Your task to perform on an android device: Empty the shopping cart on bestbuy. Search for lg ultragear on bestbuy, select the first entry, add it to the cart, then select checkout. Image 0: 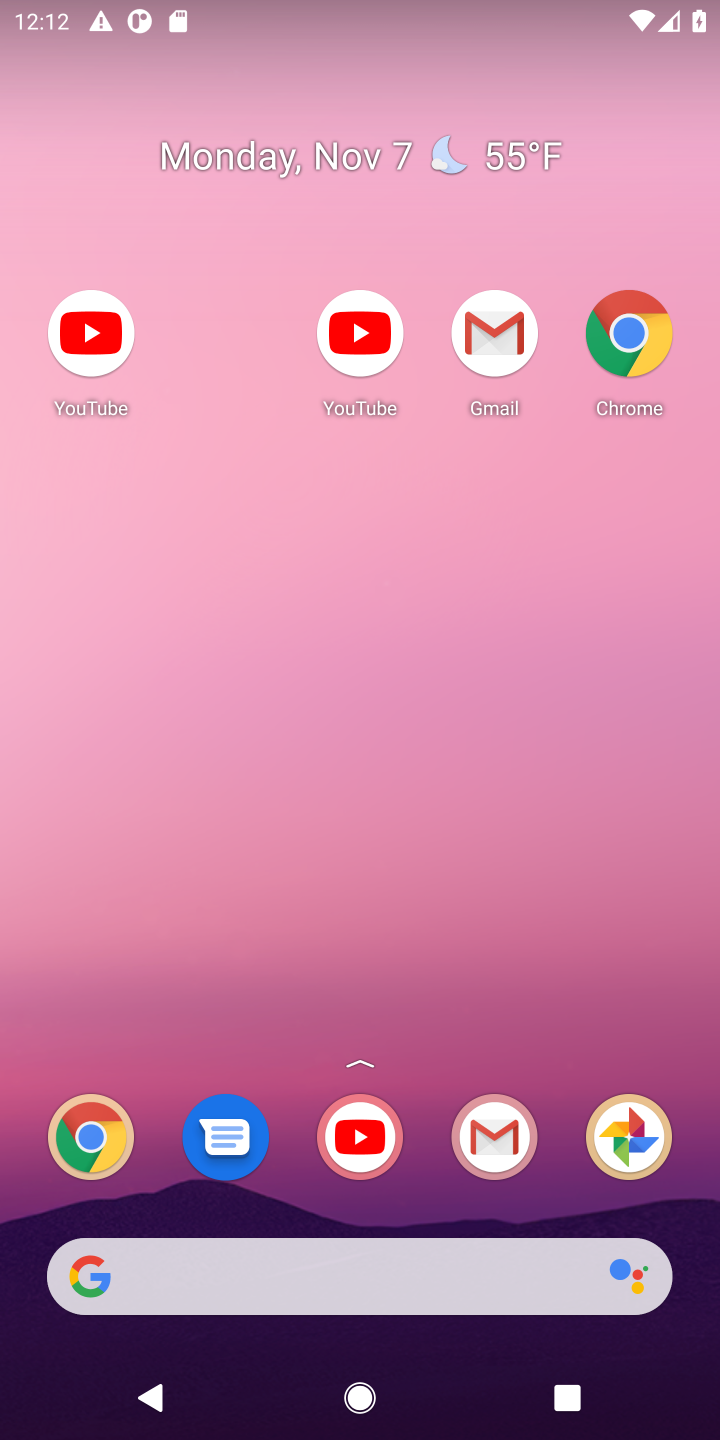
Step 0: drag from (392, 927) to (349, 451)
Your task to perform on an android device: Empty the shopping cart on bestbuy. Search for lg ultragear on bestbuy, select the first entry, add it to the cart, then select checkout. Image 1: 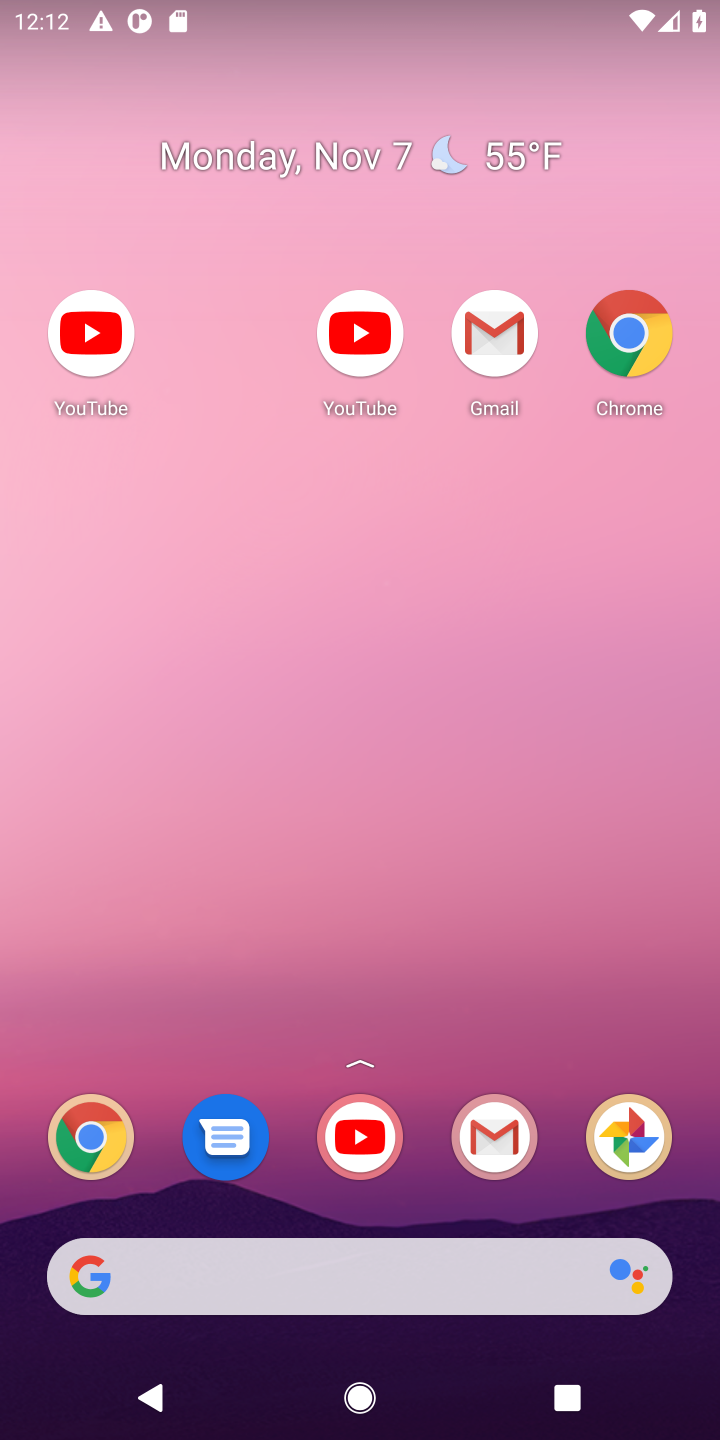
Step 1: drag from (285, 1226) to (336, 297)
Your task to perform on an android device: Empty the shopping cart on bestbuy. Search for lg ultragear on bestbuy, select the first entry, add it to the cart, then select checkout. Image 2: 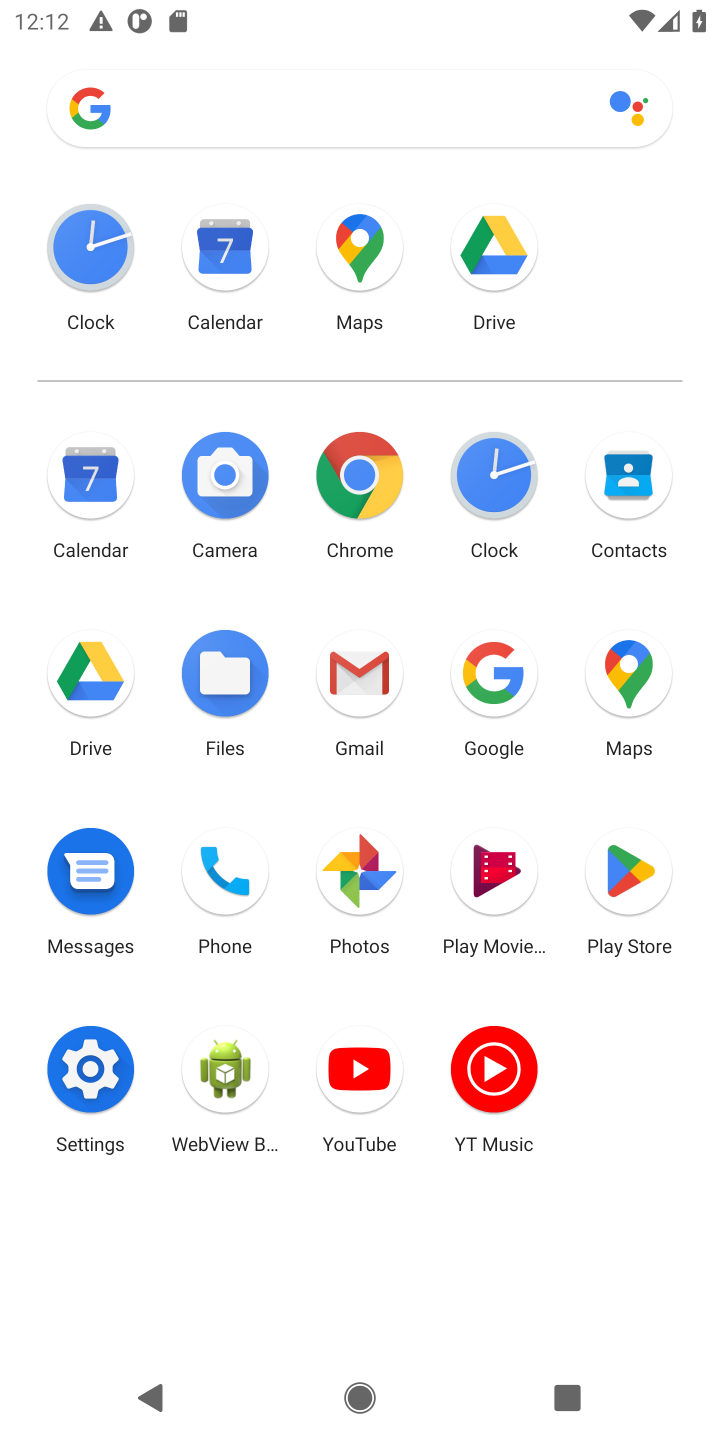
Step 2: click (358, 484)
Your task to perform on an android device: Empty the shopping cart on bestbuy. Search for lg ultragear on bestbuy, select the first entry, add it to the cart, then select checkout. Image 3: 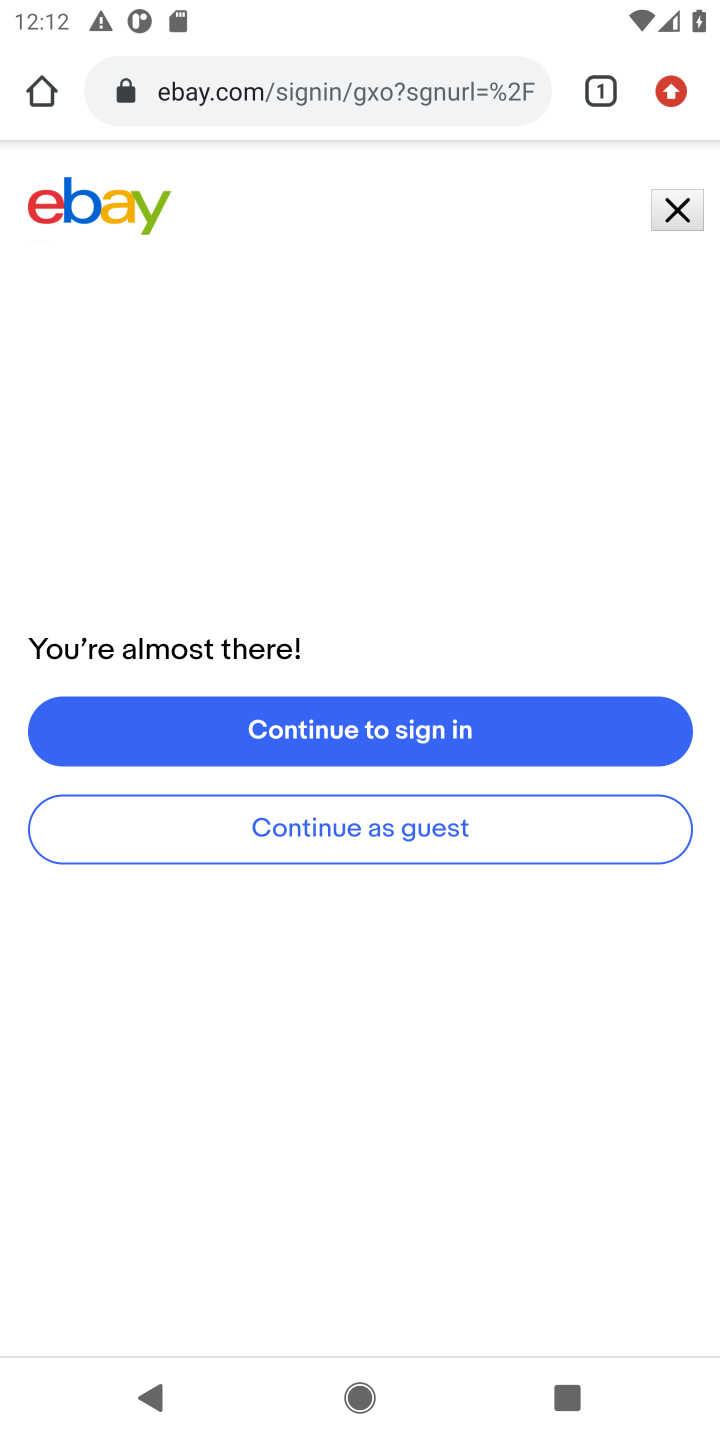
Step 3: click (396, 104)
Your task to perform on an android device: Empty the shopping cart on bestbuy. Search for lg ultragear on bestbuy, select the first entry, add it to the cart, then select checkout. Image 4: 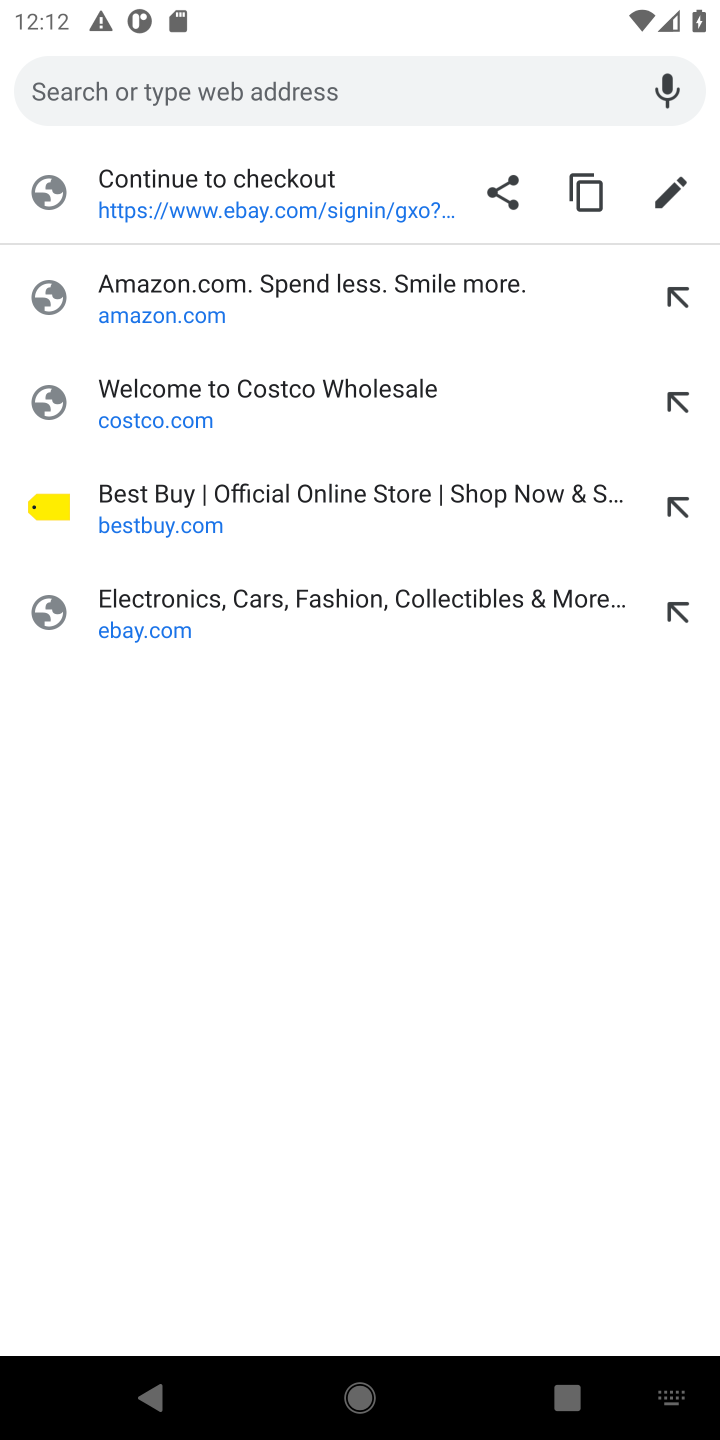
Step 4: type "bestbuy.com"
Your task to perform on an android device: Empty the shopping cart on bestbuy. Search for lg ultragear on bestbuy, select the first entry, add it to the cart, then select checkout. Image 5: 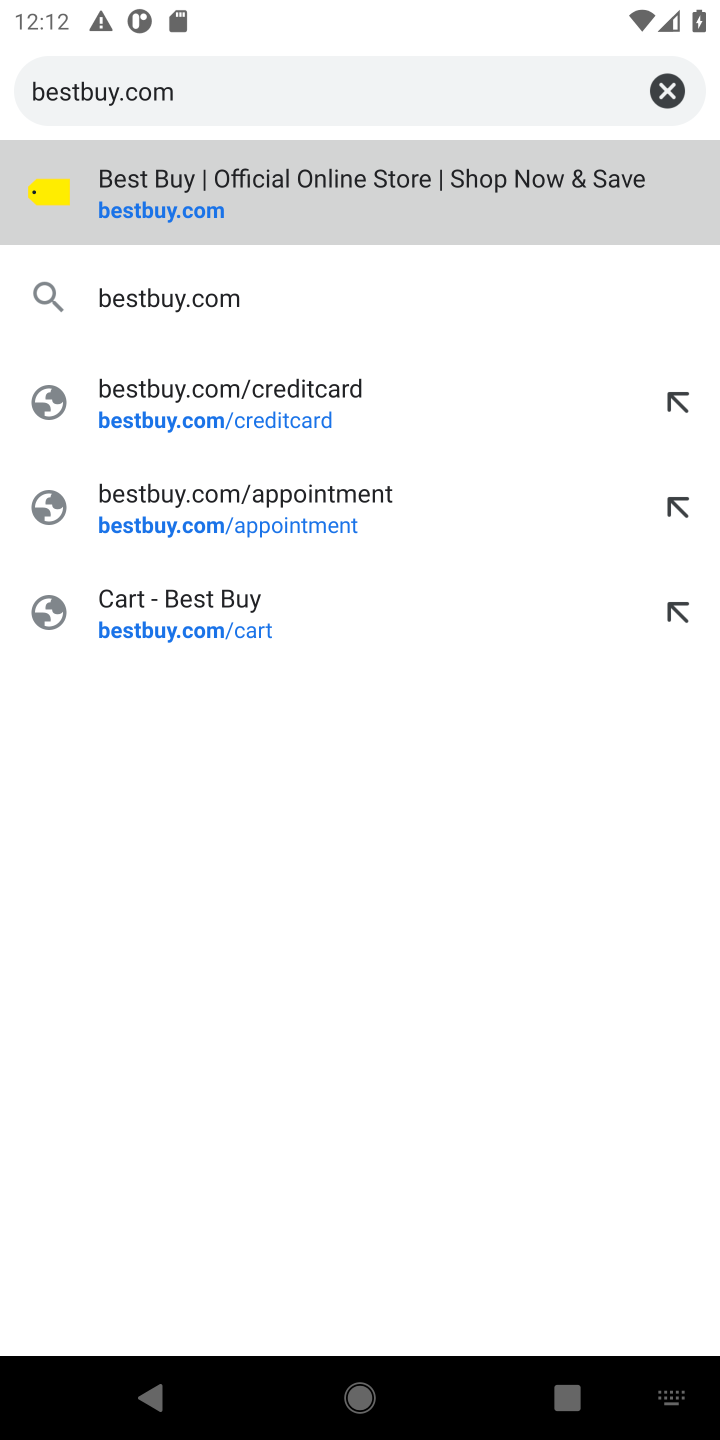
Step 5: press enter
Your task to perform on an android device: Empty the shopping cart on bestbuy. Search for lg ultragear on bestbuy, select the first entry, add it to the cart, then select checkout. Image 6: 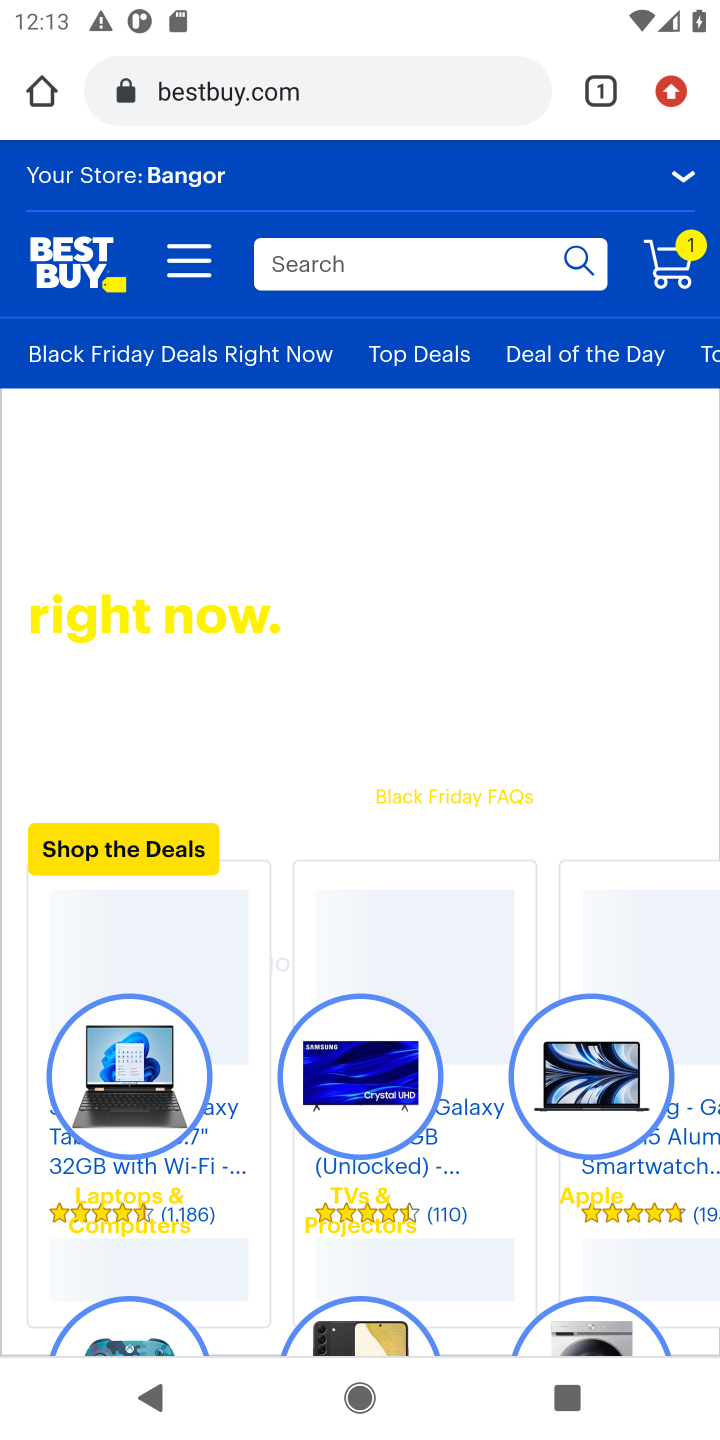
Step 6: click (677, 267)
Your task to perform on an android device: Empty the shopping cart on bestbuy. Search for lg ultragear on bestbuy, select the first entry, add it to the cart, then select checkout. Image 7: 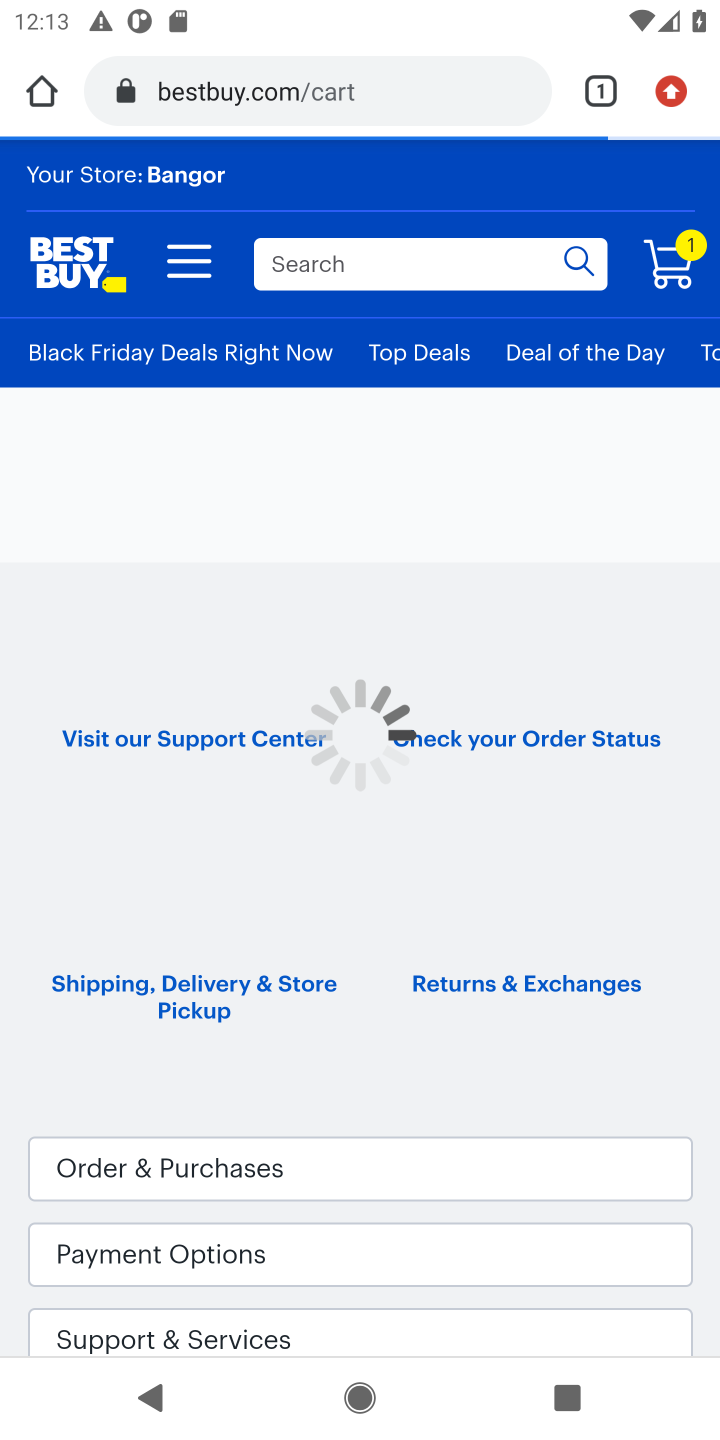
Step 7: click (673, 269)
Your task to perform on an android device: Empty the shopping cart on bestbuy. Search for lg ultragear on bestbuy, select the first entry, add it to the cart, then select checkout. Image 8: 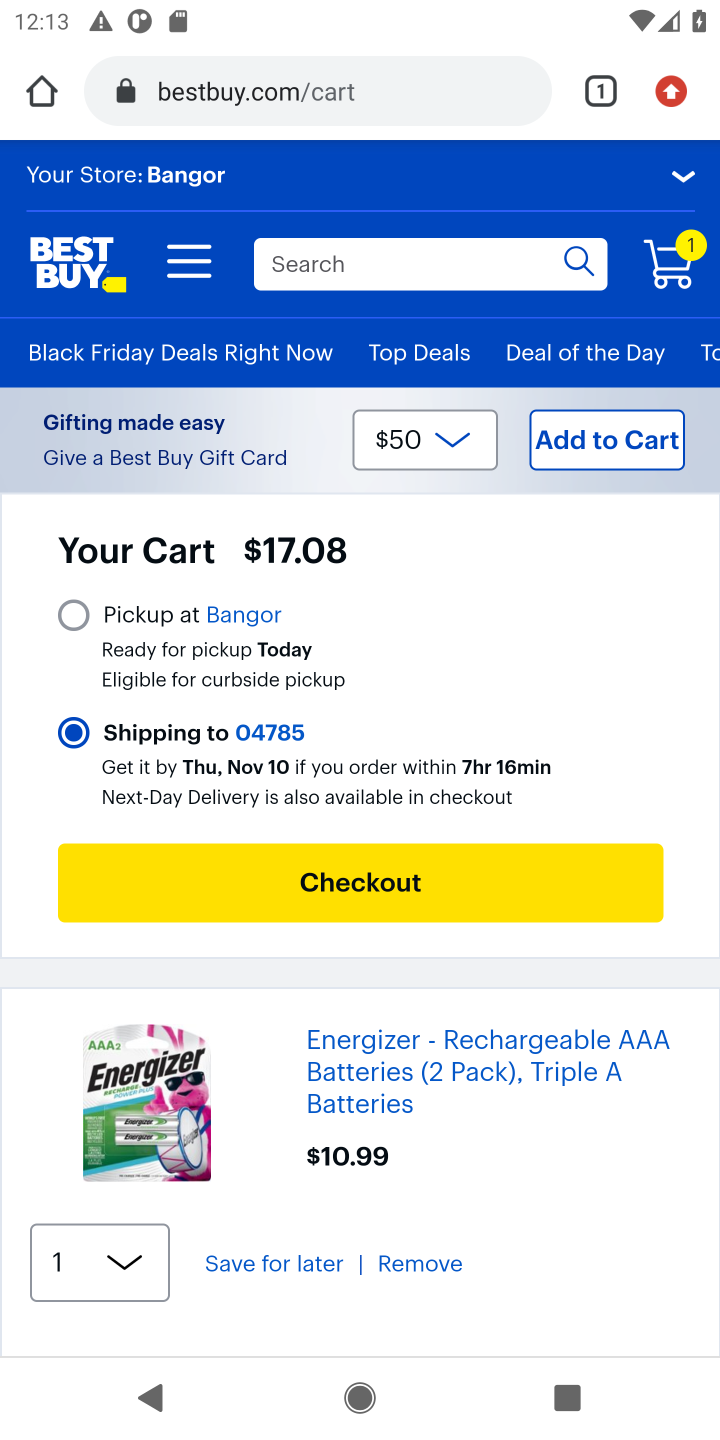
Step 8: click (422, 1250)
Your task to perform on an android device: Empty the shopping cart on bestbuy. Search for lg ultragear on bestbuy, select the first entry, add it to the cart, then select checkout. Image 9: 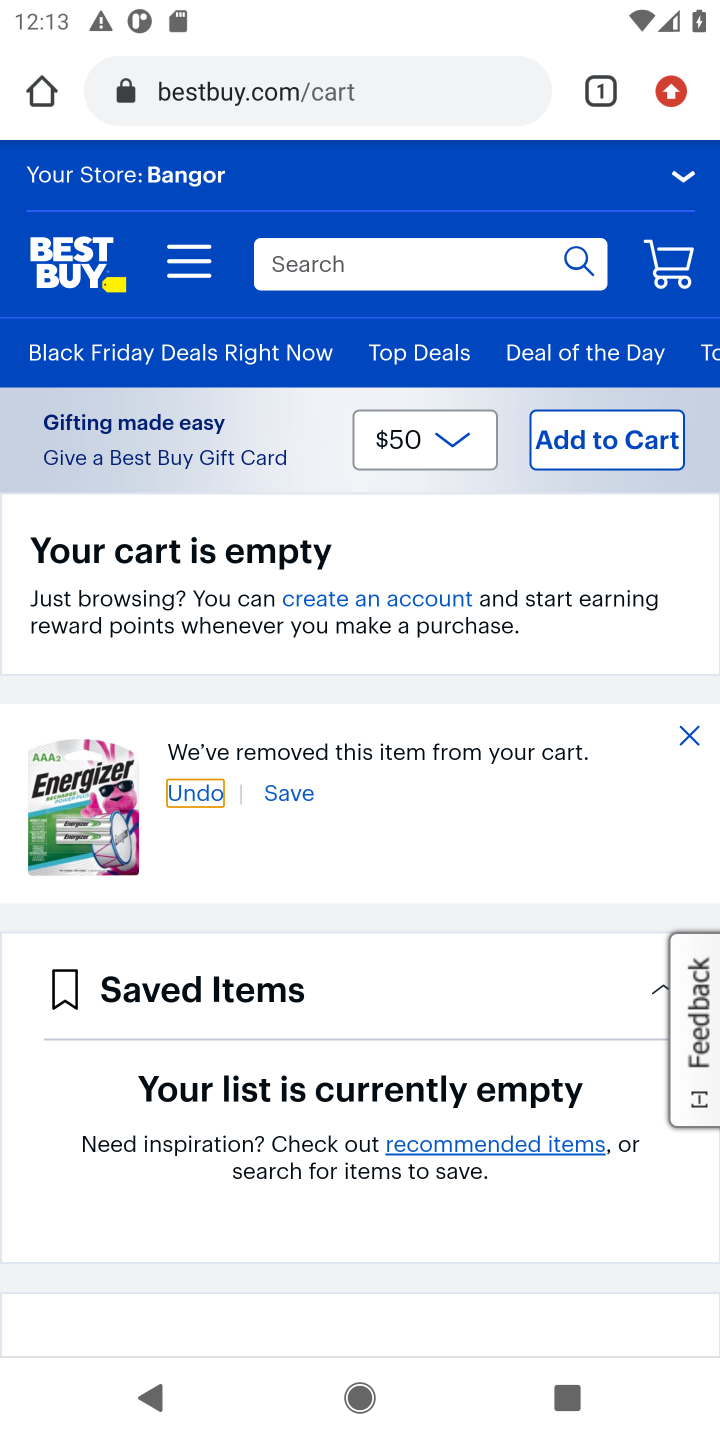
Step 9: click (501, 265)
Your task to perform on an android device: Empty the shopping cart on bestbuy. Search for lg ultragear on bestbuy, select the first entry, add it to the cart, then select checkout. Image 10: 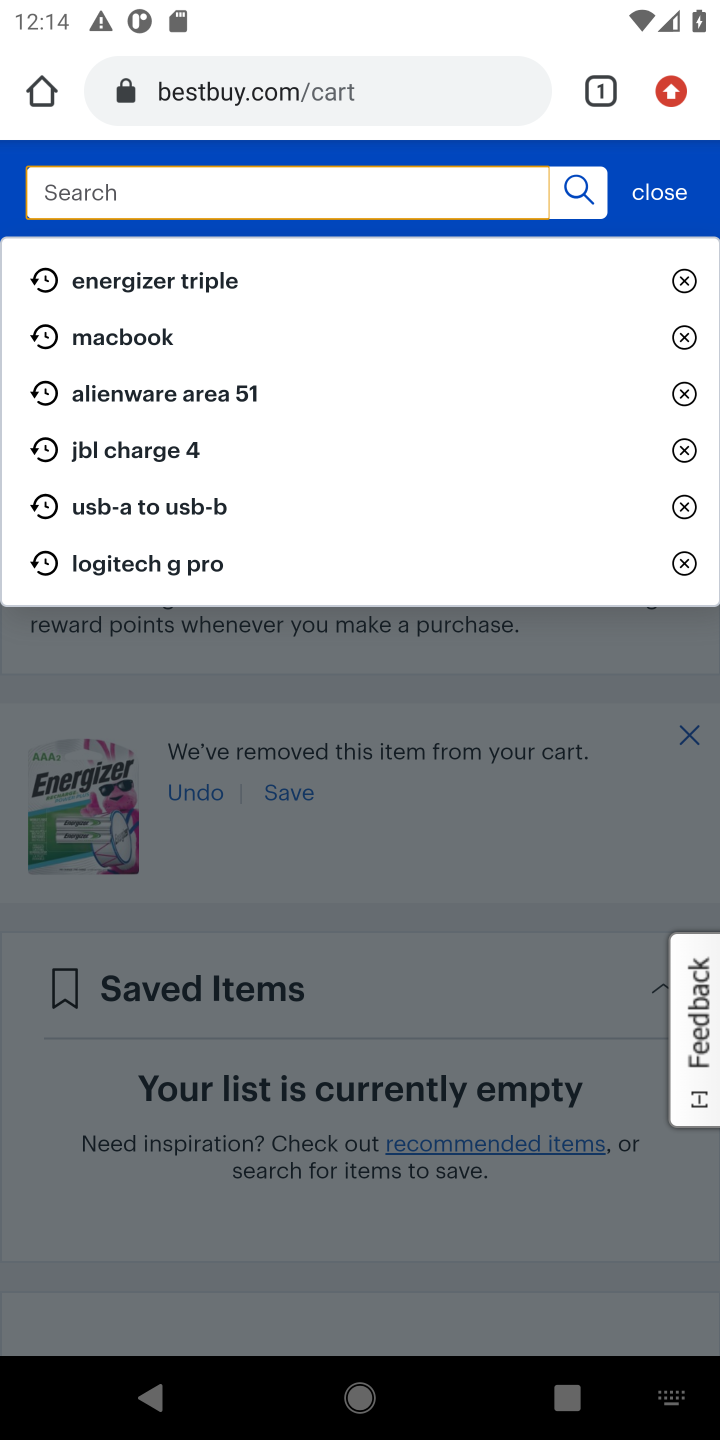
Step 10: type "lg ultragrear"
Your task to perform on an android device: Empty the shopping cart on bestbuy. Search for lg ultragear on bestbuy, select the first entry, add it to the cart, then select checkout. Image 11: 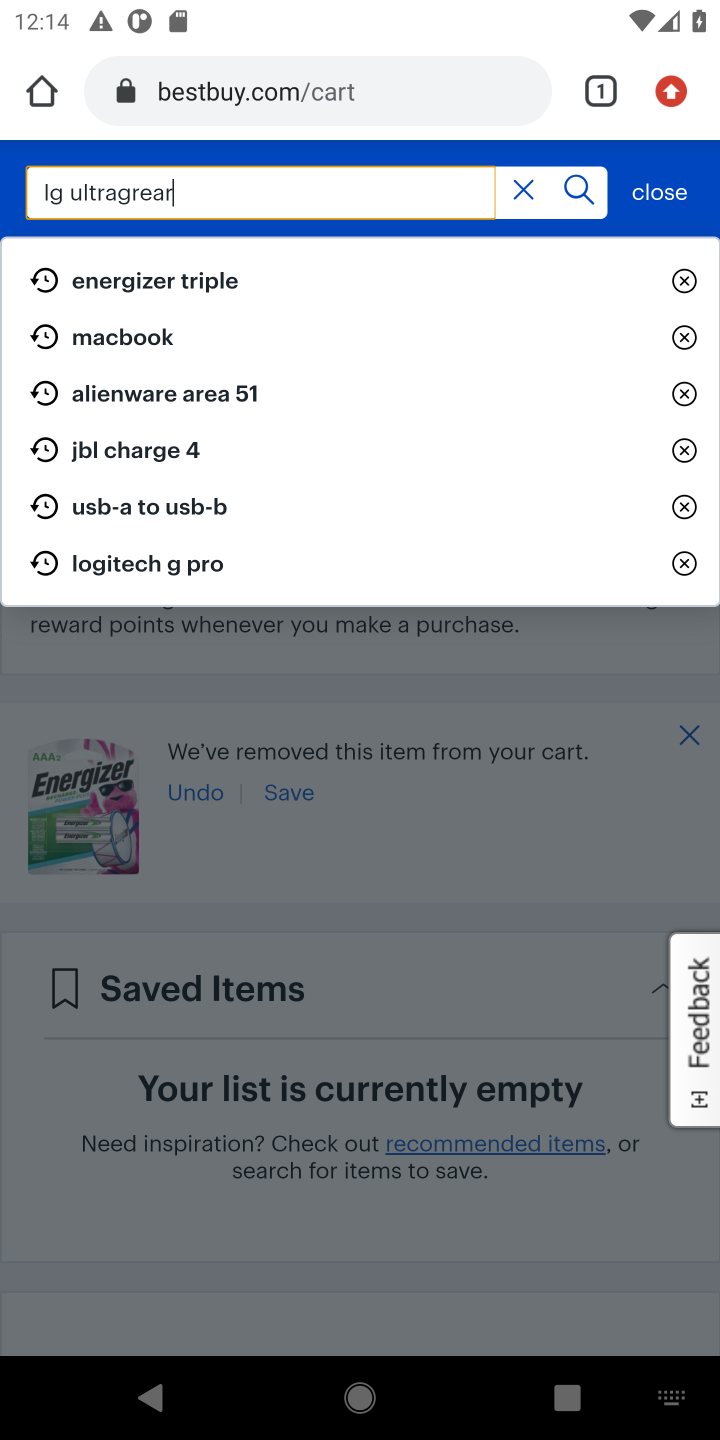
Step 11: press enter
Your task to perform on an android device: Empty the shopping cart on bestbuy. Search for lg ultragear on bestbuy, select the first entry, add it to the cart, then select checkout. Image 12: 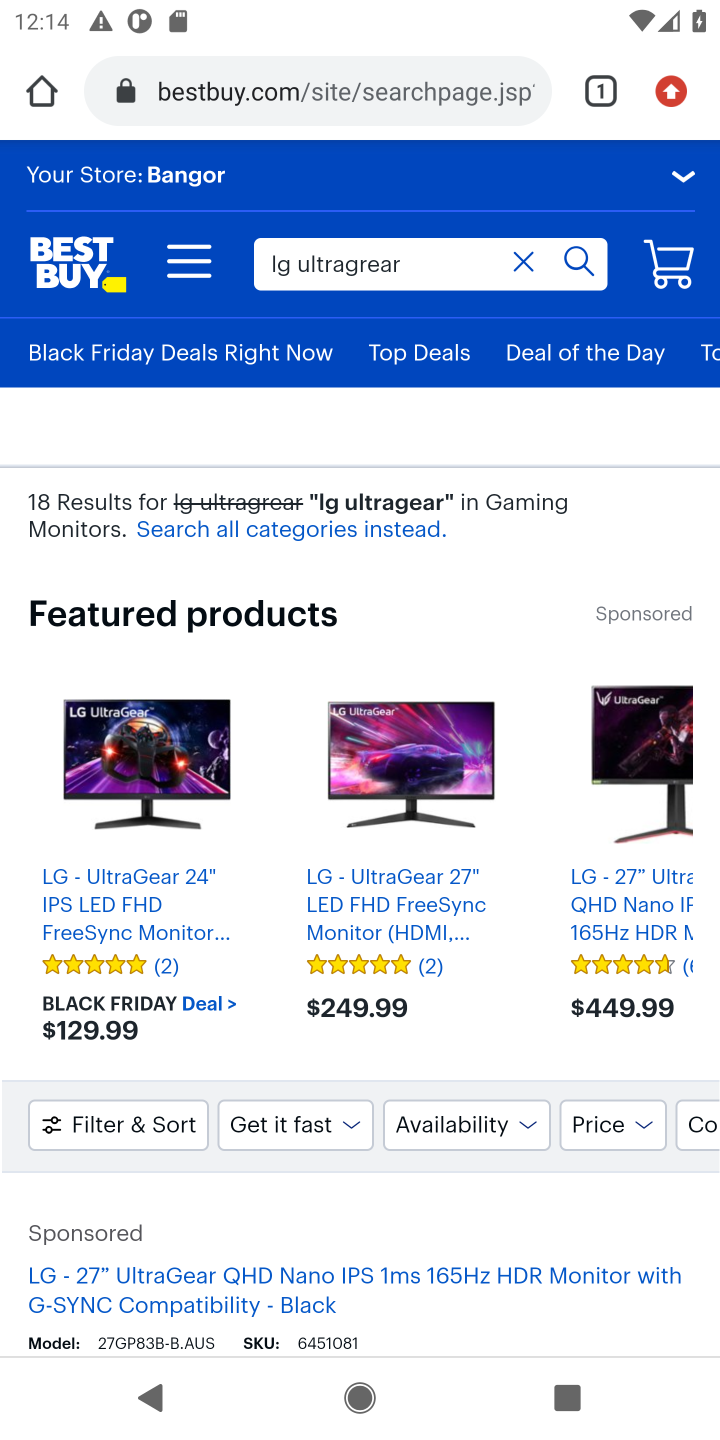
Step 12: drag from (448, 981) to (381, 243)
Your task to perform on an android device: Empty the shopping cart on bestbuy. Search for lg ultragear on bestbuy, select the first entry, add it to the cart, then select checkout. Image 13: 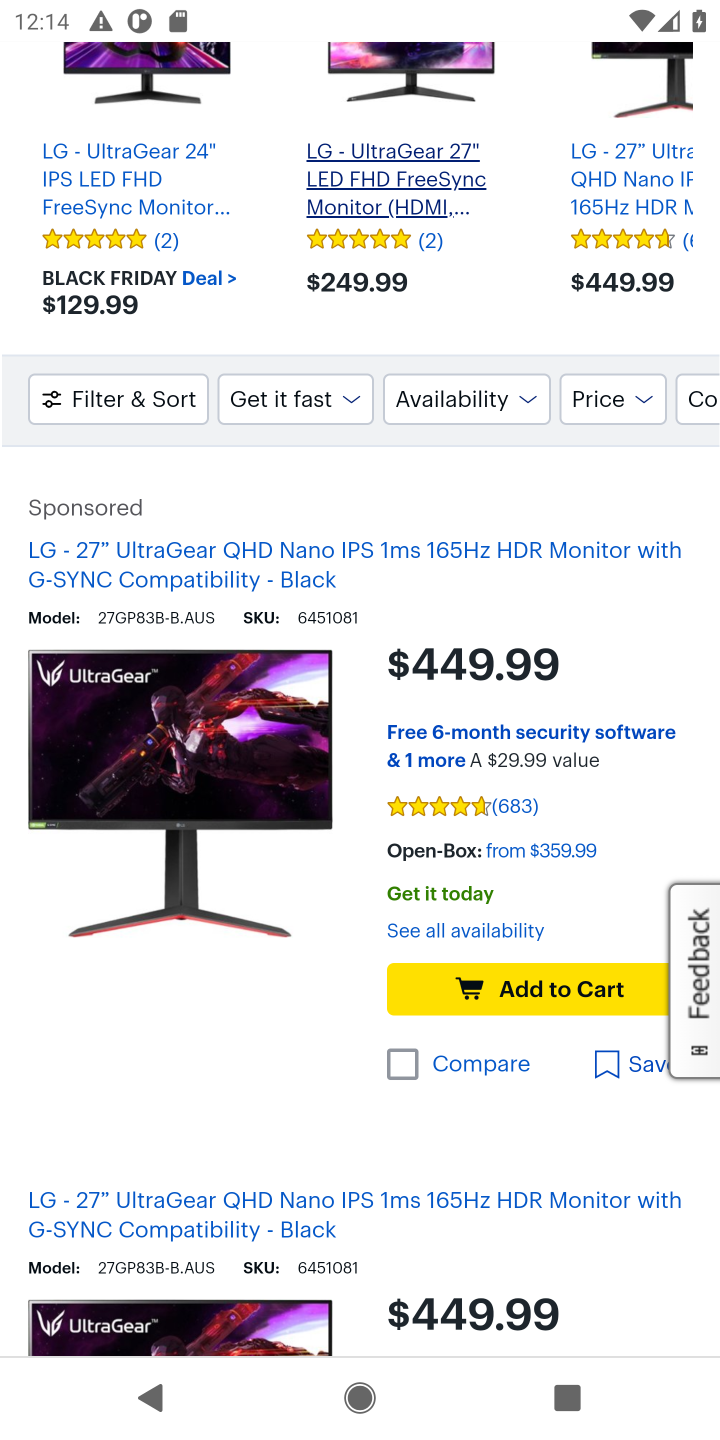
Step 13: drag from (376, 1262) to (286, 738)
Your task to perform on an android device: Empty the shopping cart on bestbuy. Search for lg ultragear on bestbuy, select the first entry, add it to the cart, then select checkout. Image 14: 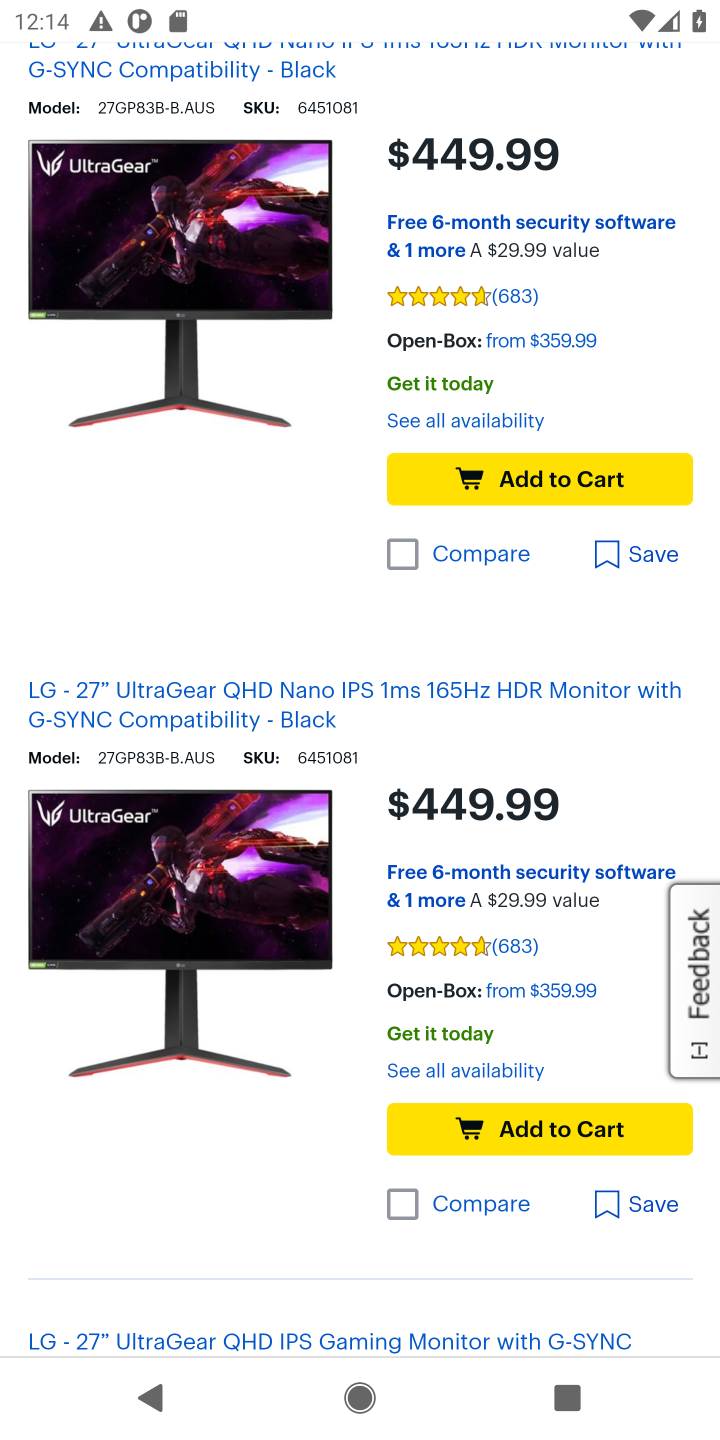
Step 14: click (605, 1113)
Your task to perform on an android device: Empty the shopping cart on bestbuy. Search for lg ultragear on bestbuy, select the first entry, add it to the cart, then select checkout. Image 15: 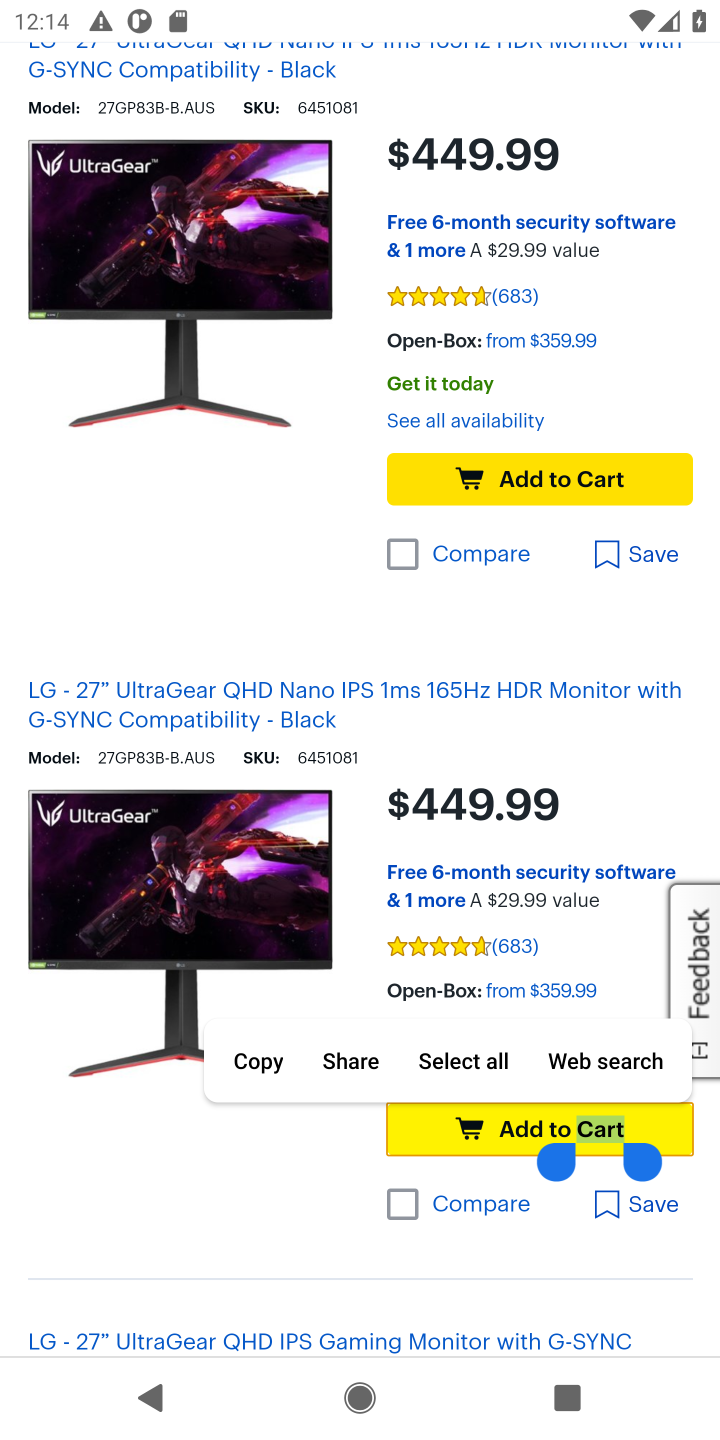
Step 15: click (518, 1134)
Your task to perform on an android device: Empty the shopping cart on bestbuy. Search for lg ultragear on bestbuy, select the first entry, add it to the cart, then select checkout. Image 16: 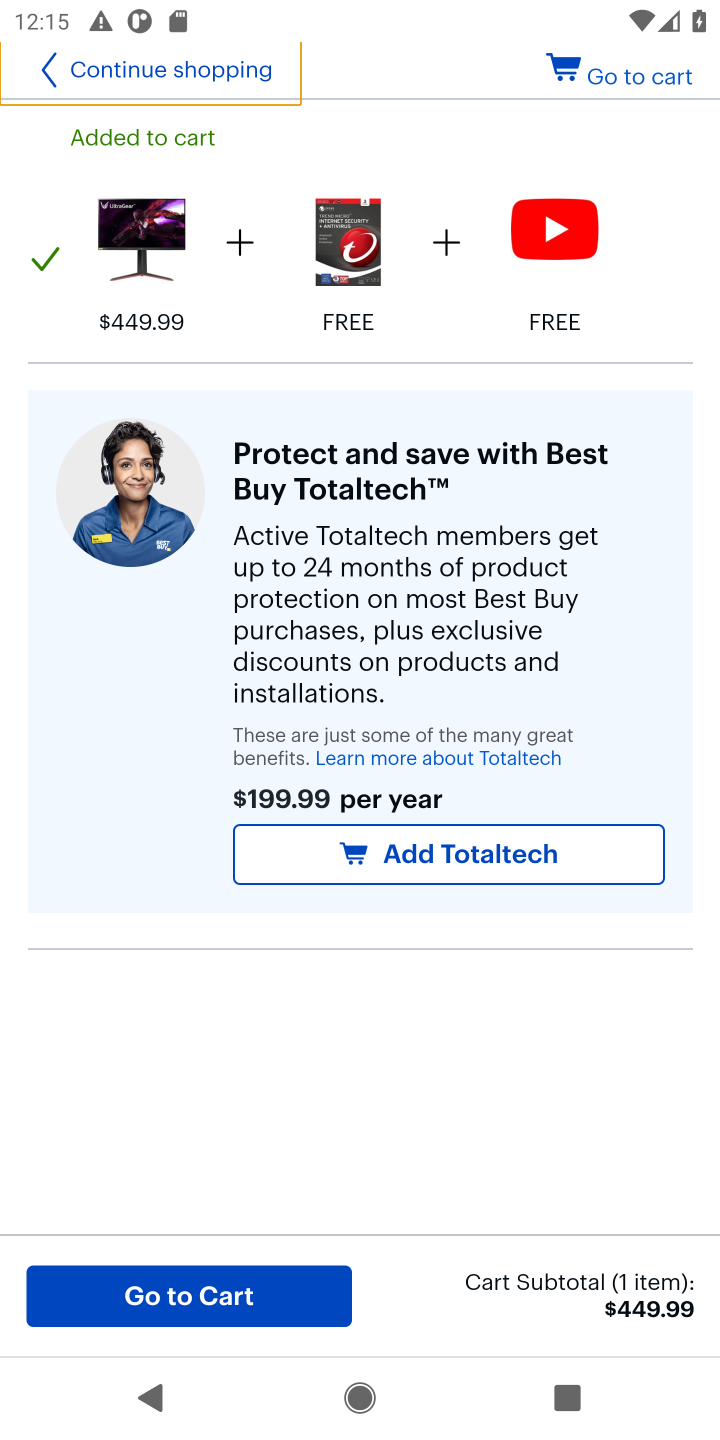
Step 16: click (289, 1304)
Your task to perform on an android device: Empty the shopping cart on bestbuy. Search for lg ultragear on bestbuy, select the first entry, add it to the cart, then select checkout. Image 17: 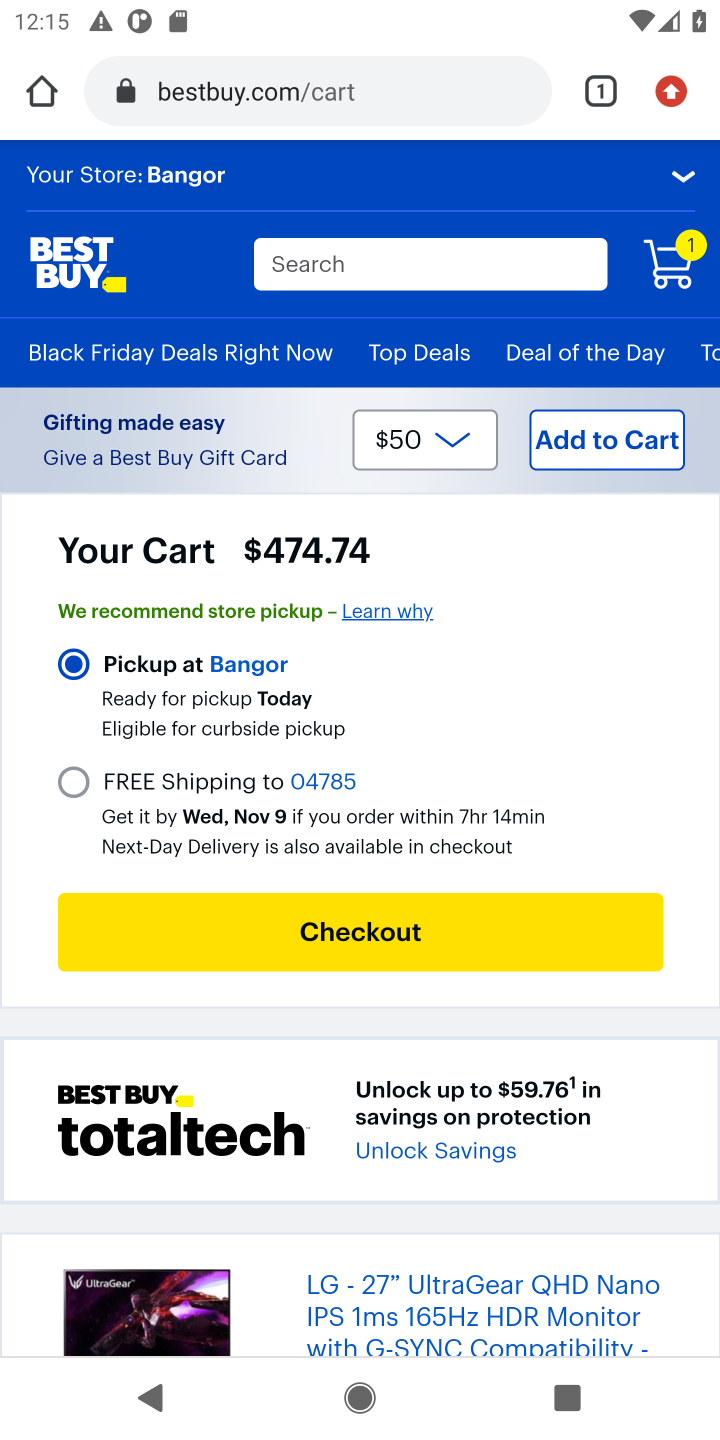
Step 17: click (504, 926)
Your task to perform on an android device: Empty the shopping cart on bestbuy. Search for lg ultragear on bestbuy, select the first entry, add it to the cart, then select checkout. Image 18: 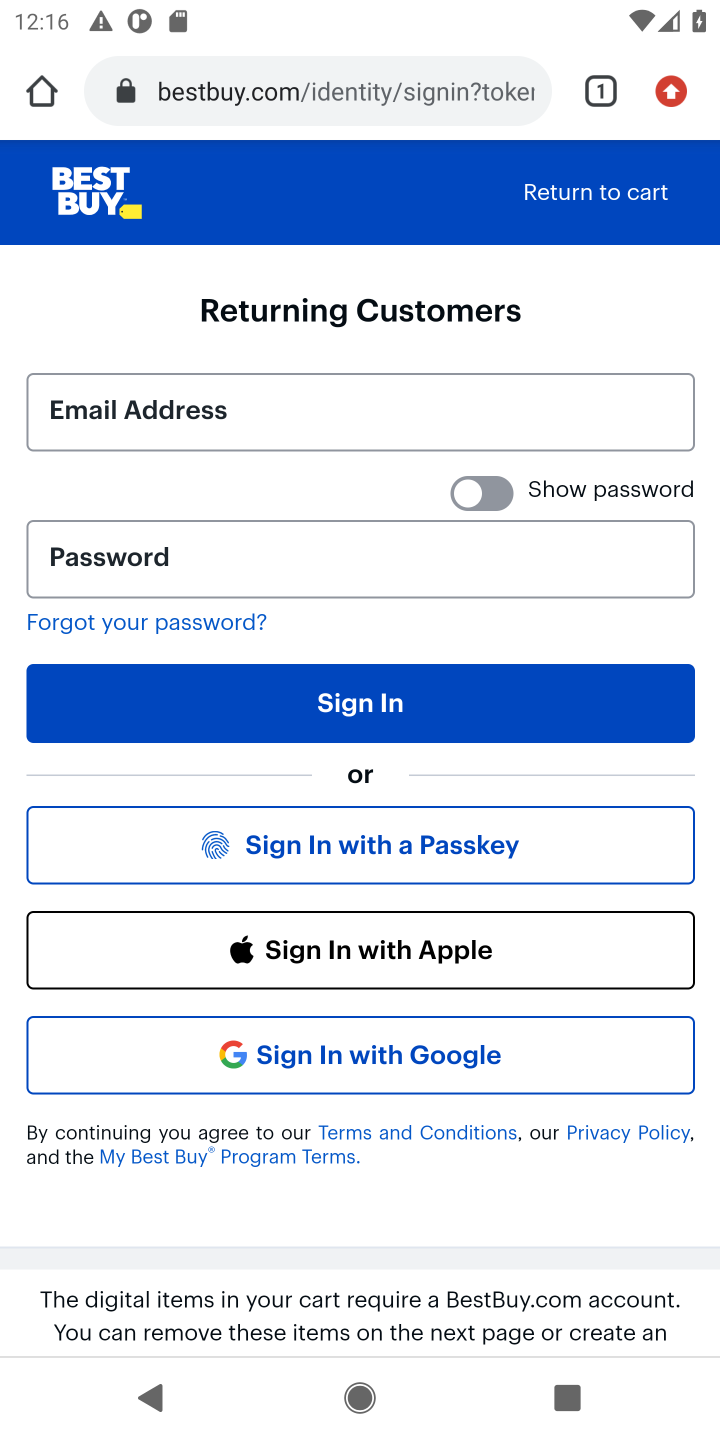
Step 18: task complete